Your task to perform on an android device: open a bookmark in the chrome app Image 0: 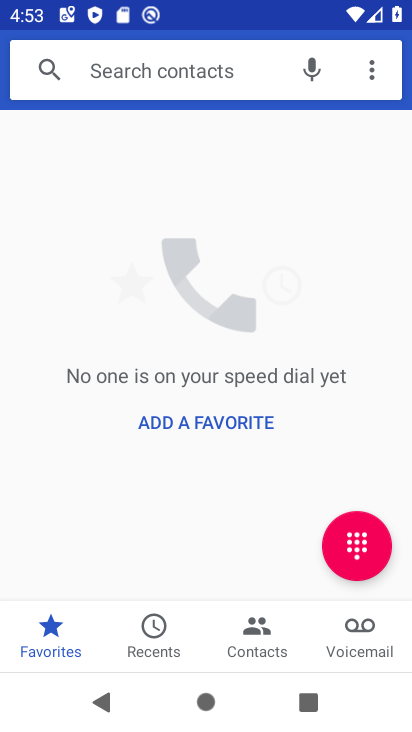
Step 0: press home button
Your task to perform on an android device: open a bookmark in the chrome app Image 1: 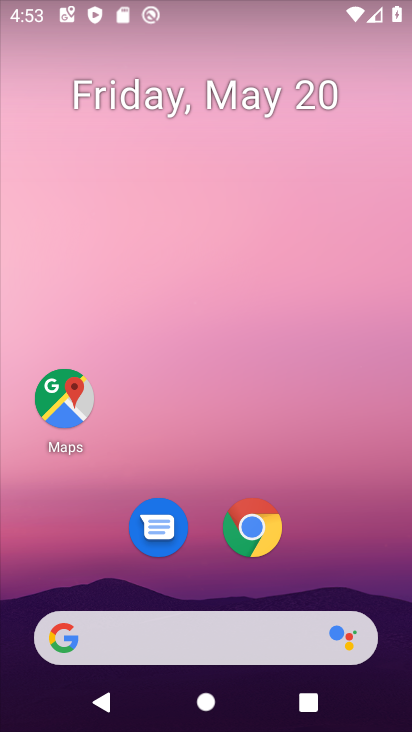
Step 1: click (254, 528)
Your task to perform on an android device: open a bookmark in the chrome app Image 2: 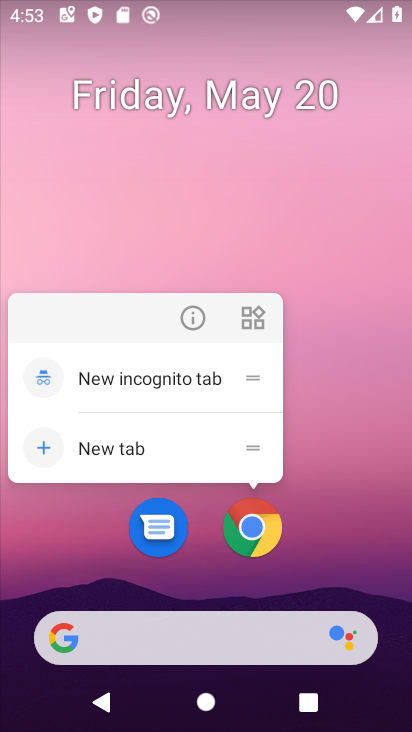
Step 2: click (249, 529)
Your task to perform on an android device: open a bookmark in the chrome app Image 3: 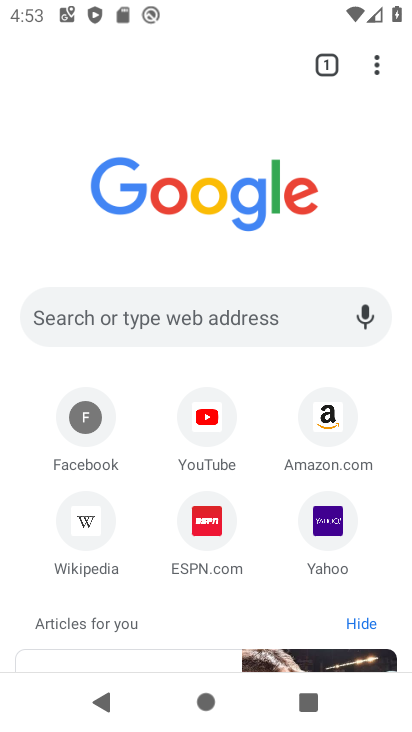
Step 3: click (377, 64)
Your task to perform on an android device: open a bookmark in the chrome app Image 4: 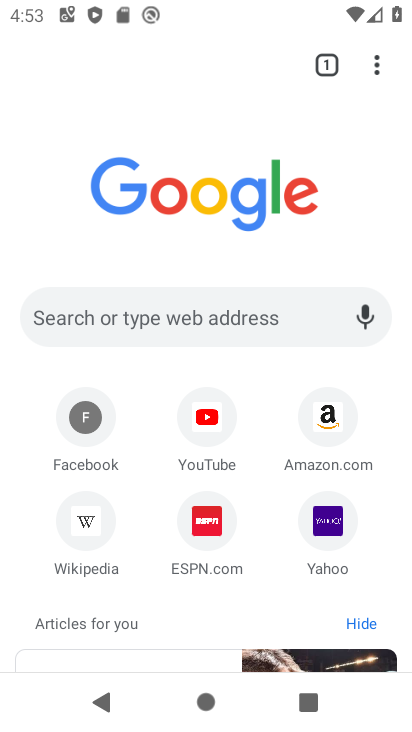
Step 4: click (374, 65)
Your task to perform on an android device: open a bookmark in the chrome app Image 5: 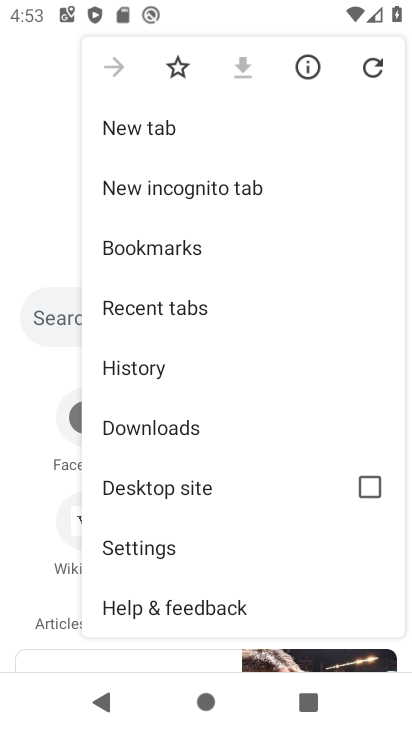
Step 5: click (146, 244)
Your task to perform on an android device: open a bookmark in the chrome app Image 6: 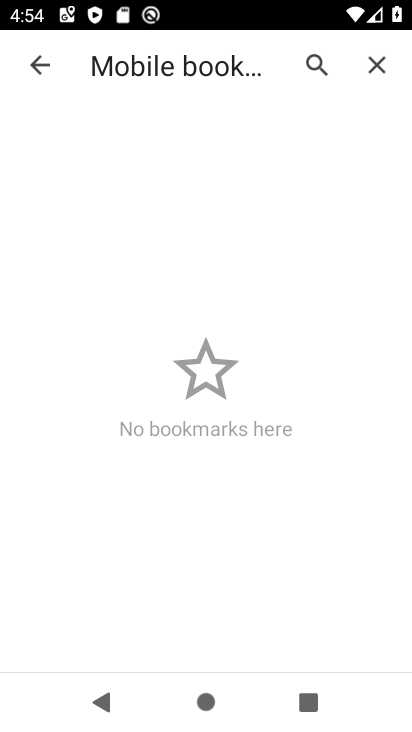
Step 6: task complete